Your task to perform on an android device: Open Google Image 0: 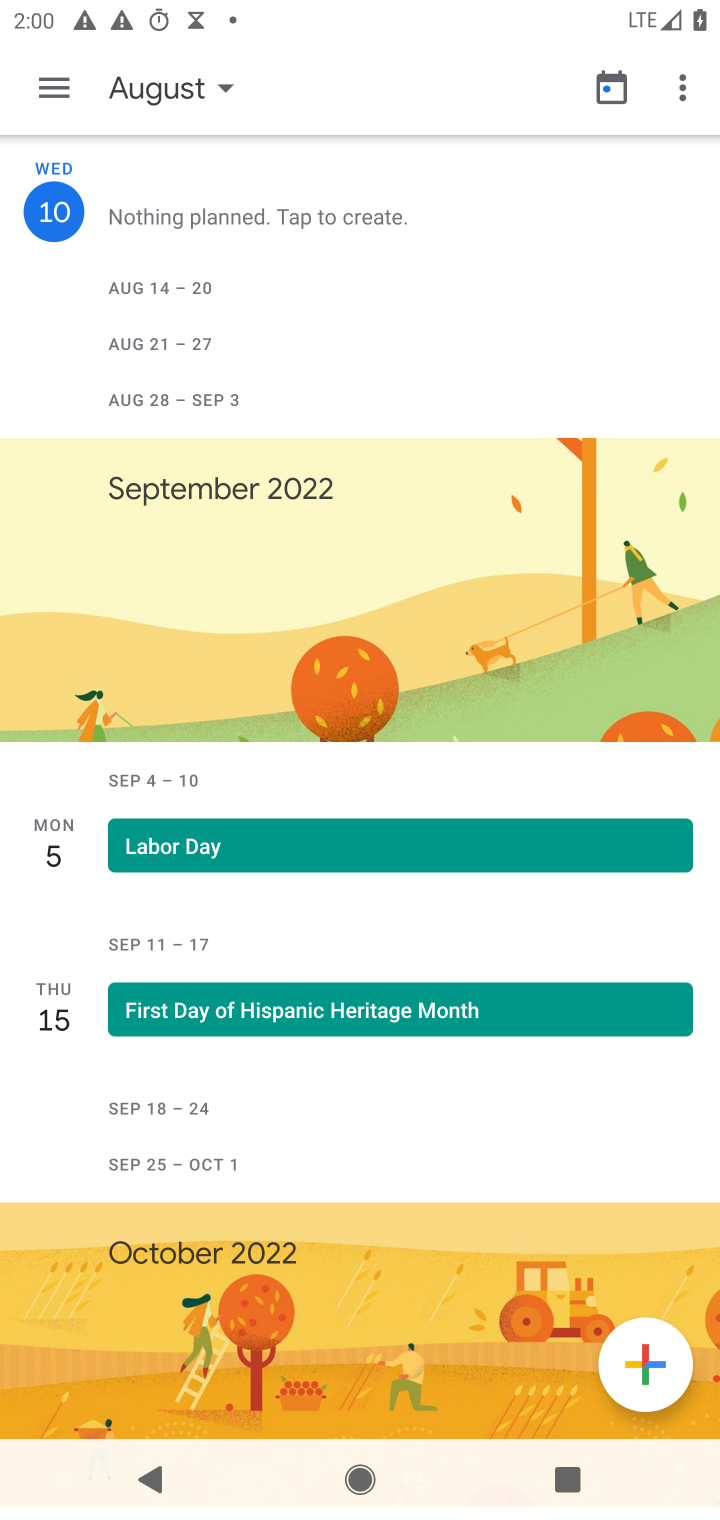
Step 0: press home button
Your task to perform on an android device: Open Google Image 1: 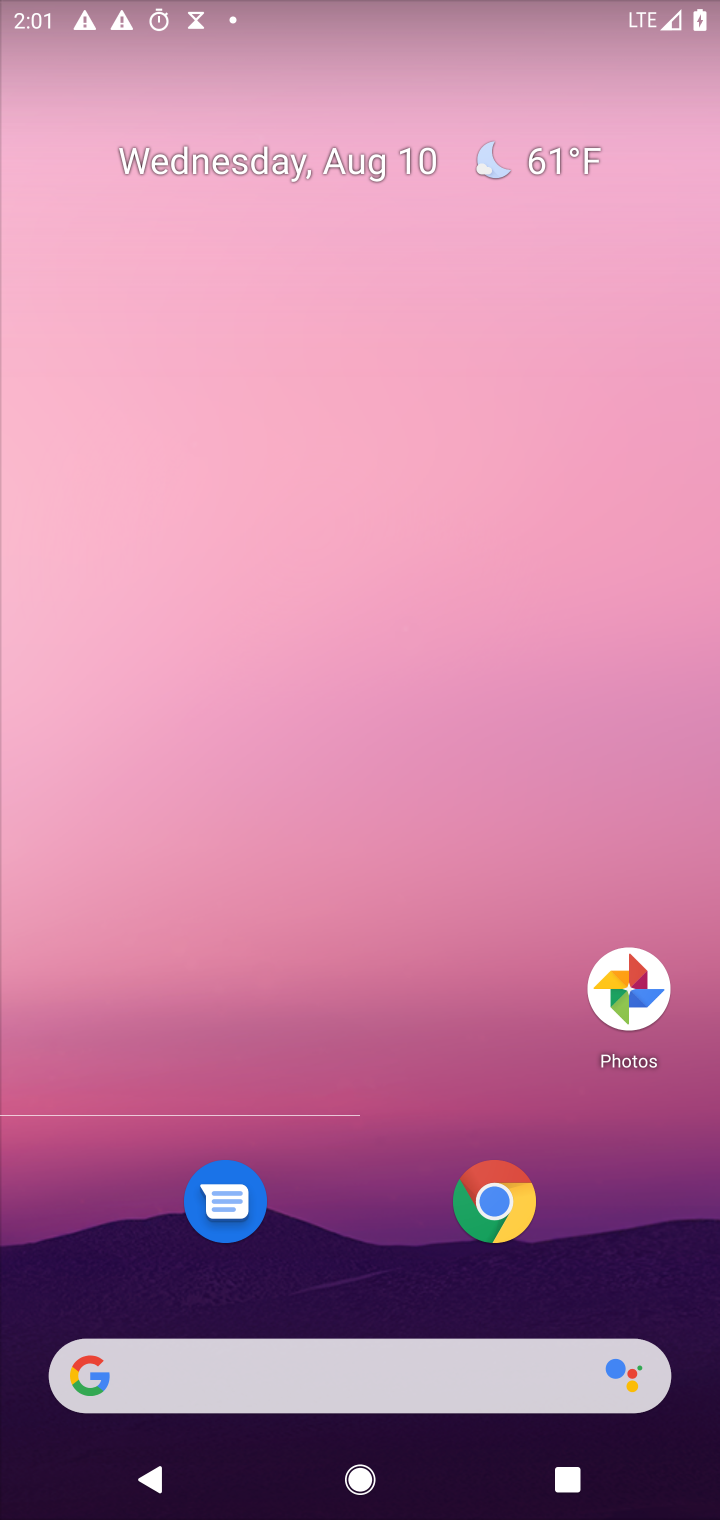
Step 1: drag from (365, 1310) to (251, 574)
Your task to perform on an android device: Open Google Image 2: 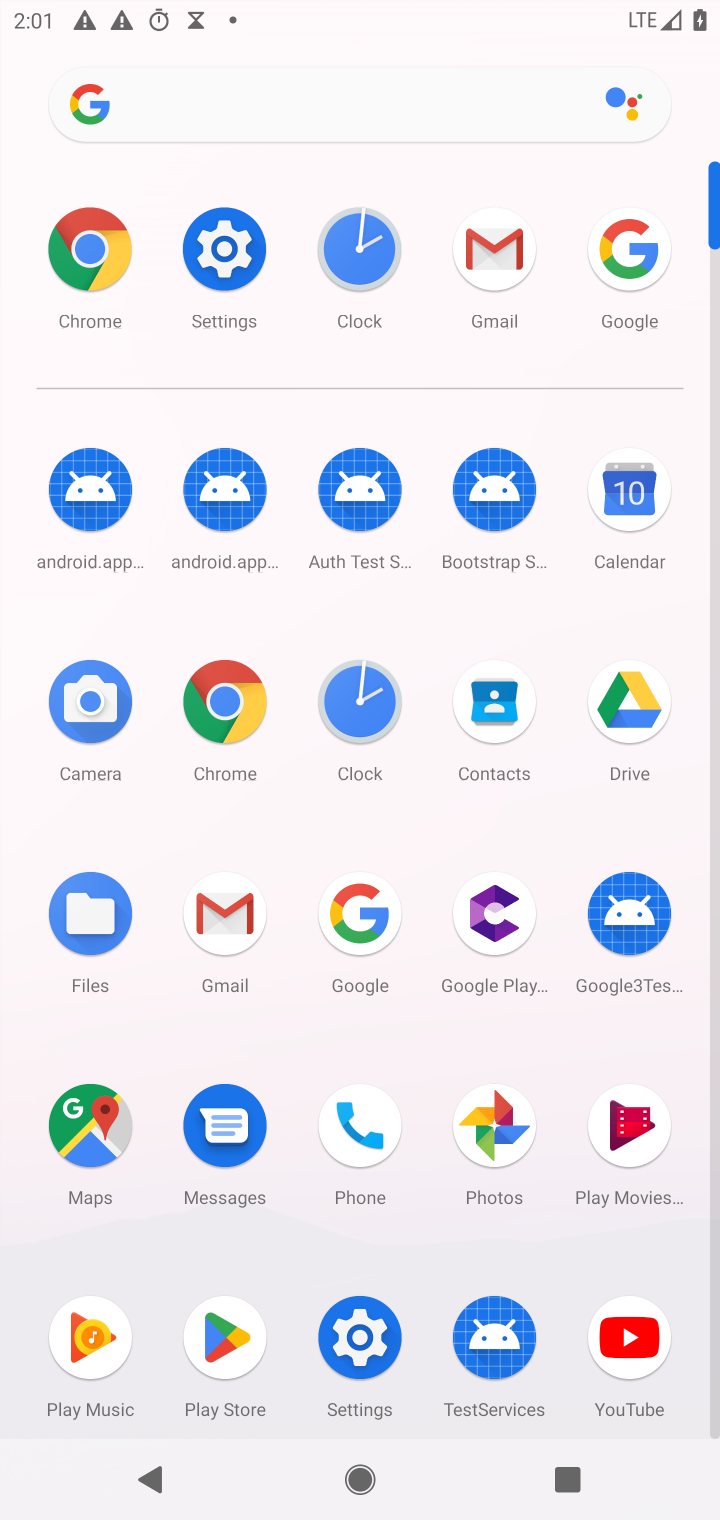
Step 2: click (362, 961)
Your task to perform on an android device: Open Google Image 3: 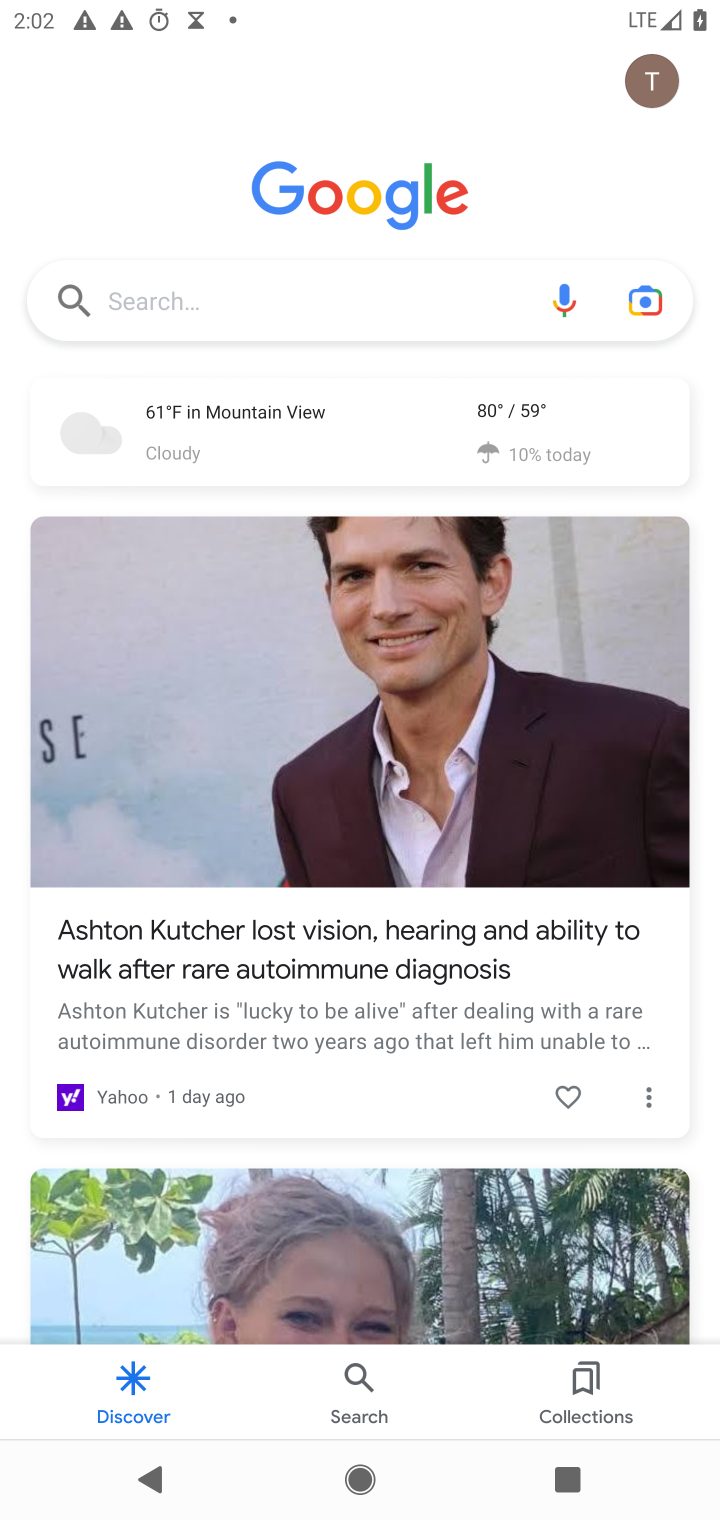
Step 3: task complete